Your task to perform on an android device: What's on my calendar today? Image 0: 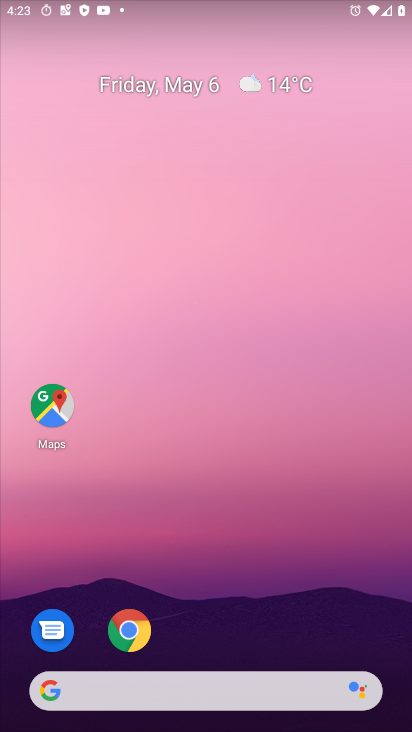
Step 0: click (244, 82)
Your task to perform on an android device: What's on my calendar today? Image 1: 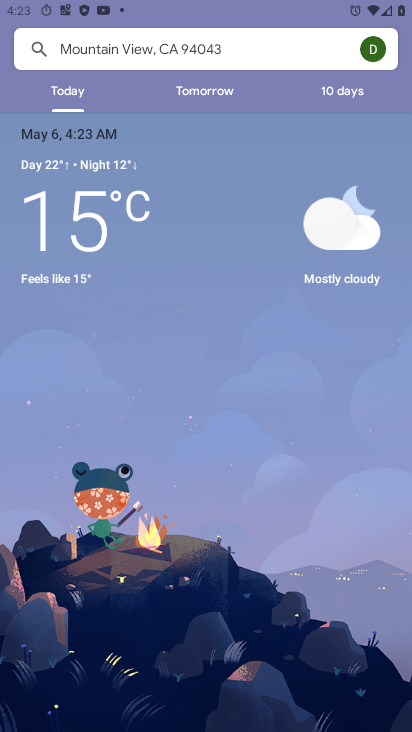
Step 1: press home button
Your task to perform on an android device: What's on my calendar today? Image 2: 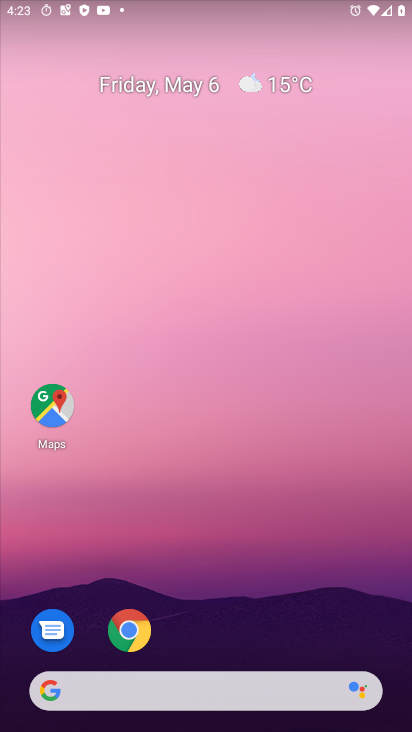
Step 2: click (172, 77)
Your task to perform on an android device: What's on my calendar today? Image 3: 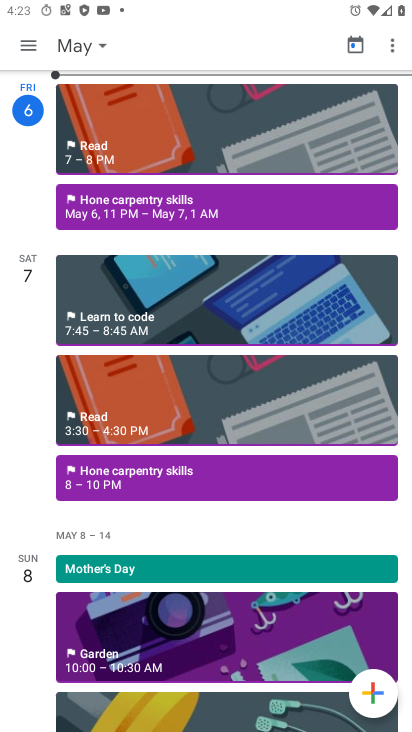
Step 3: task complete